Your task to perform on an android device: open device folders in google photos Image 0: 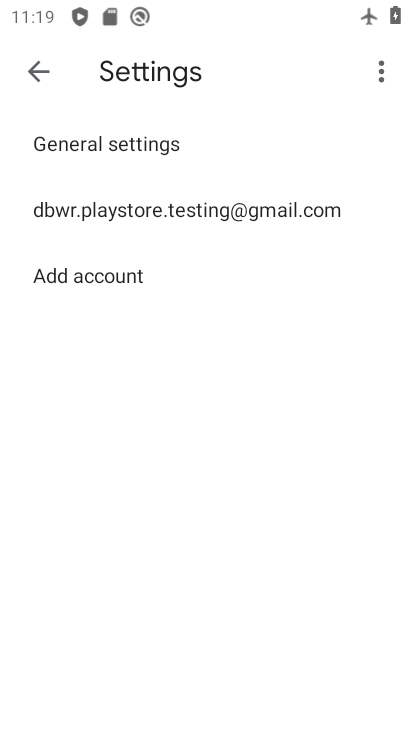
Step 0: press home button
Your task to perform on an android device: open device folders in google photos Image 1: 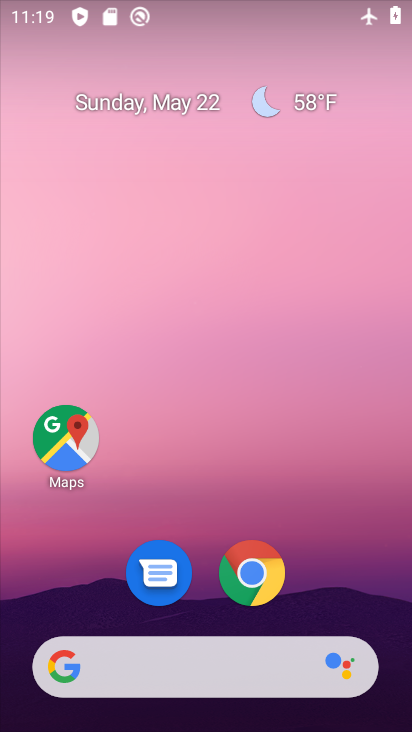
Step 1: drag from (331, 585) to (353, 309)
Your task to perform on an android device: open device folders in google photos Image 2: 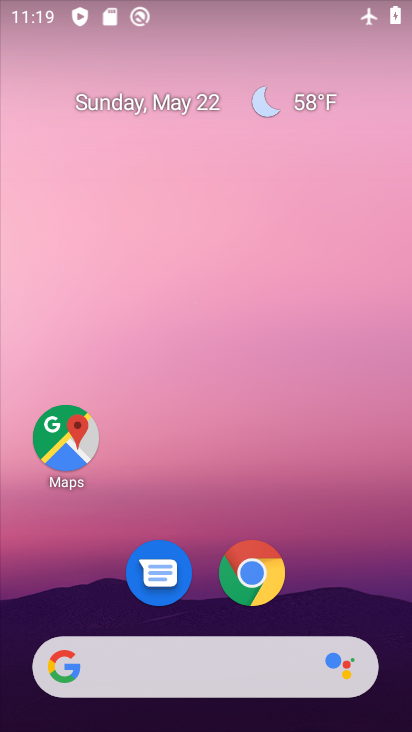
Step 2: drag from (382, 598) to (385, 259)
Your task to perform on an android device: open device folders in google photos Image 3: 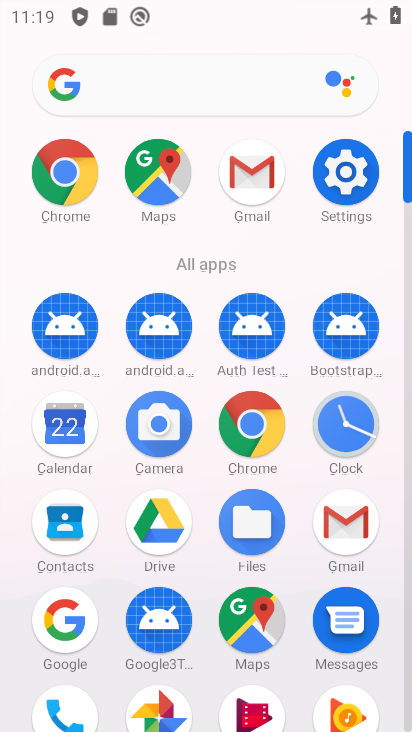
Step 3: drag from (290, 673) to (289, 480)
Your task to perform on an android device: open device folders in google photos Image 4: 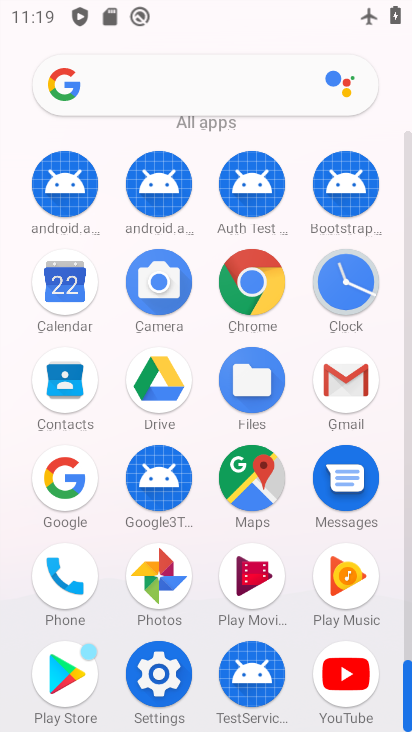
Step 4: click (136, 588)
Your task to perform on an android device: open device folders in google photos Image 5: 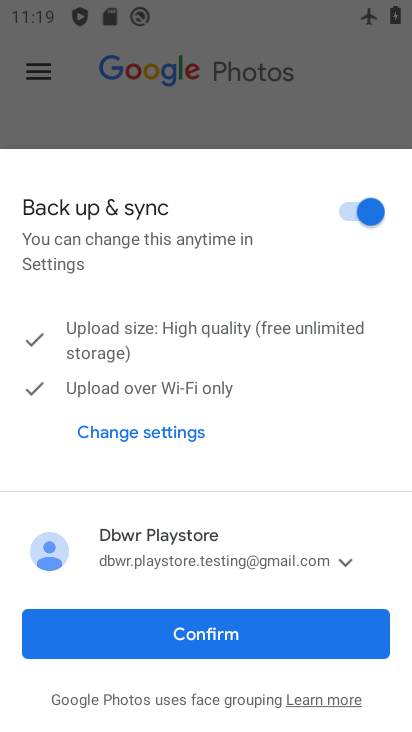
Step 5: click (207, 644)
Your task to perform on an android device: open device folders in google photos Image 6: 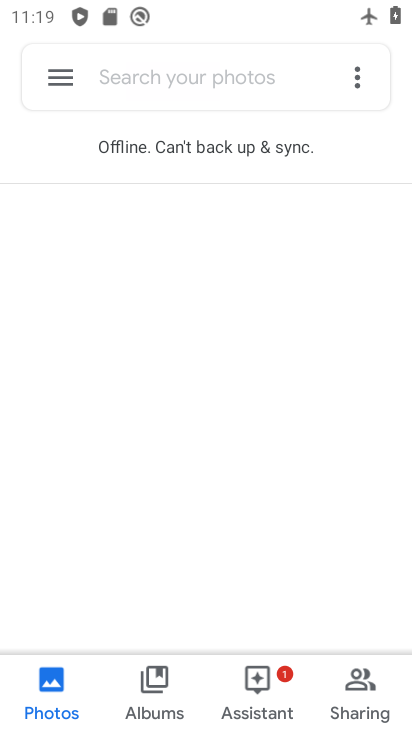
Step 6: click (57, 74)
Your task to perform on an android device: open device folders in google photos Image 7: 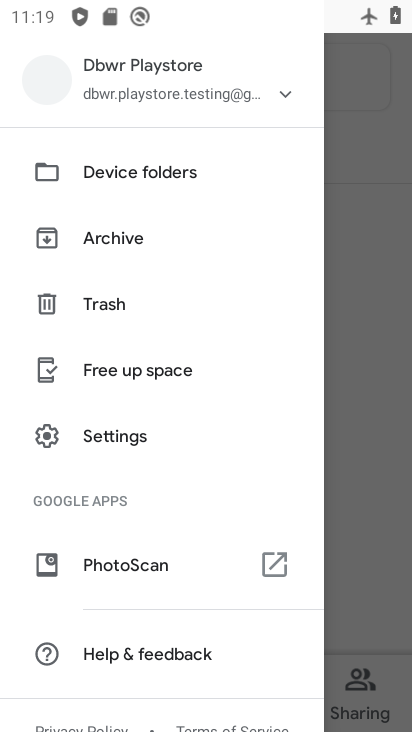
Step 7: drag from (217, 545) to (217, 386)
Your task to perform on an android device: open device folders in google photos Image 8: 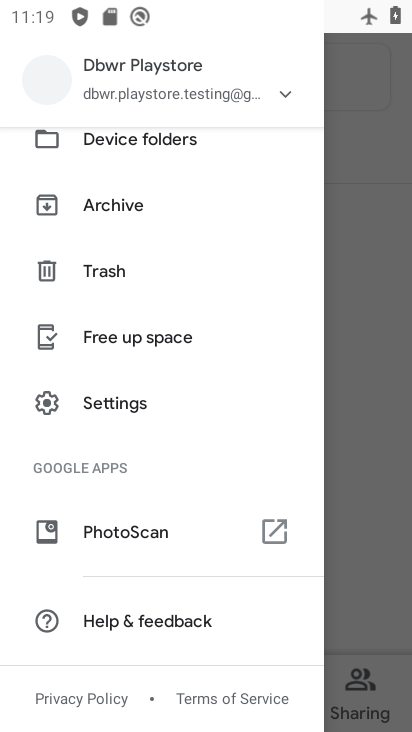
Step 8: drag from (202, 592) to (211, 436)
Your task to perform on an android device: open device folders in google photos Image 9: 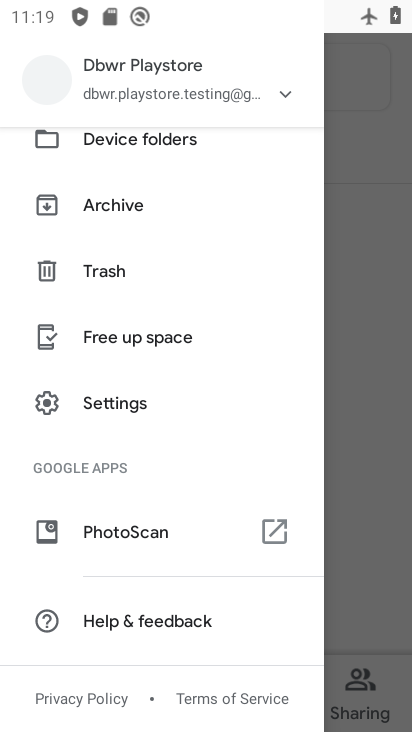
Step 9: drag from (204, 593) to (204, 397)
Your task to perform on an android device: open device folders in google photos Image 10: 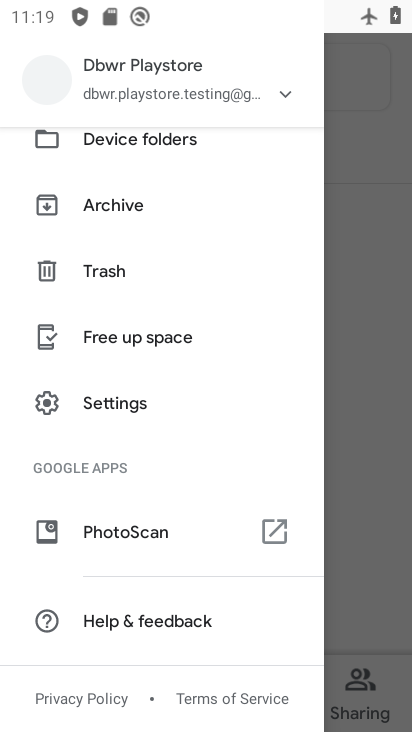
Step 10: drag from (208, 598) to (204, 387)
Your task to perform on an android device: open device folders in google photos Image 11: 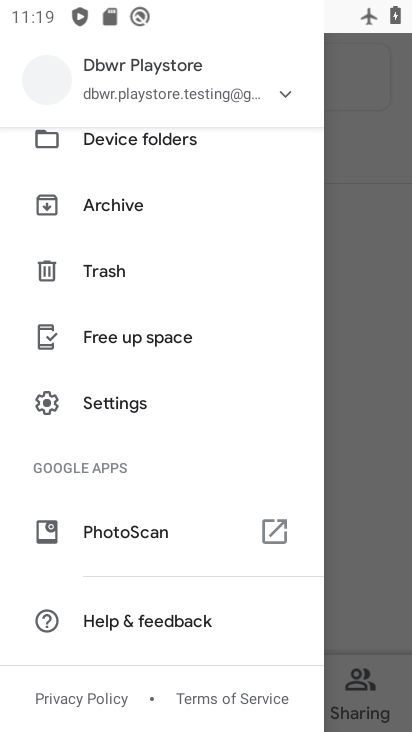
Step 11: drag from (198, 298) to (193, 469)
Your task to perform on an android device: open device folders in google photos Image 12: 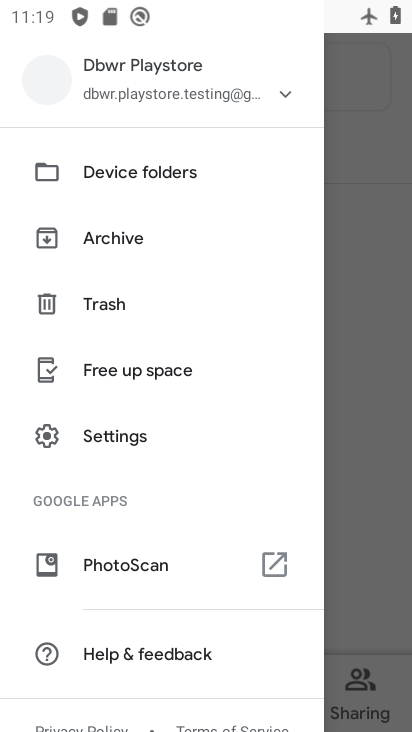
Step 12: drag from (188, 295) to (188, 466)
Your task to perform on an android device: open device folders in google photos Image 13: 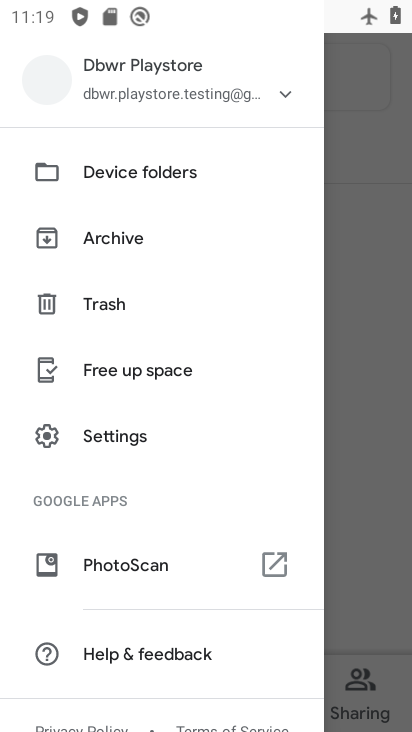
Step 13: drag from (198, 325) to (198, 477)
Your task to perform on an android device: open device folders in google photos Image 14: 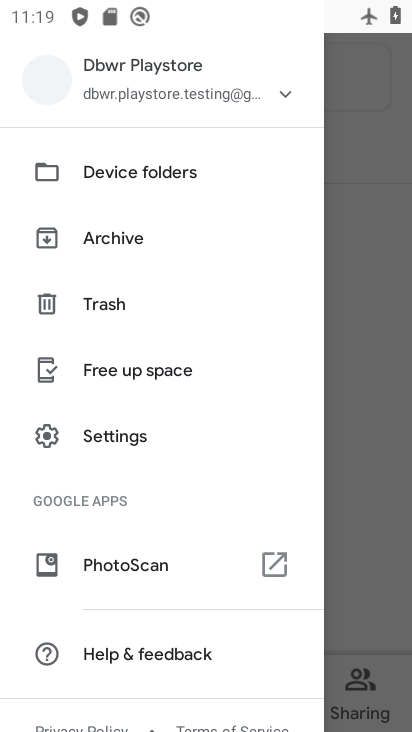
Step 14: drag from (188, 301) to (204, 455)
Your task to perform on an android device: open device folders in google photos Image 15: 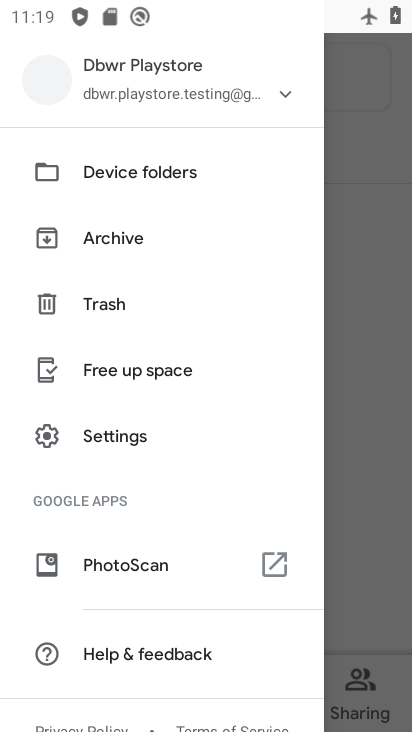
Step 15: drag from (200, 565) to (204, 356)
Your task to perform on an android device: open device folders in google photos Image 16: 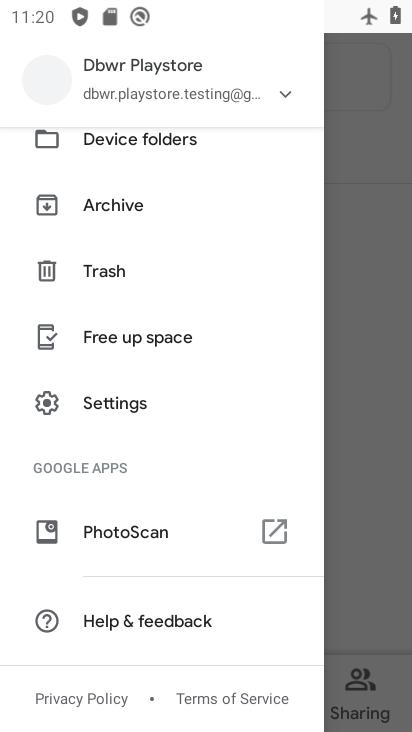
Step 16: drag from (198, 285) to (201, 438)
Your task to perform on an android device: open device folders in google photos Image 17: 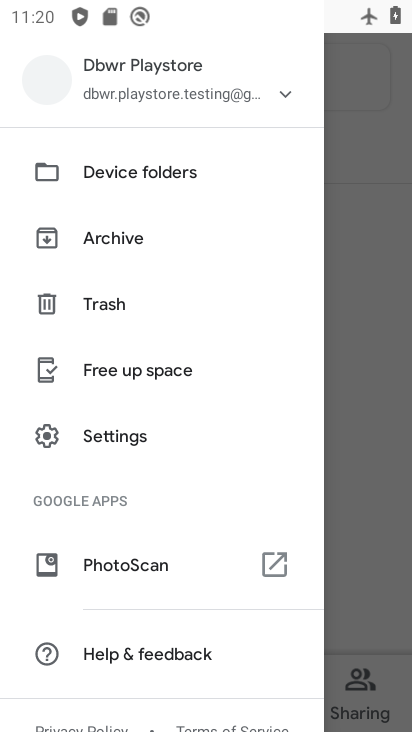
Step 17: click (174, 178)
Your task to perform on an android device: open device folders in google photos Image 18: 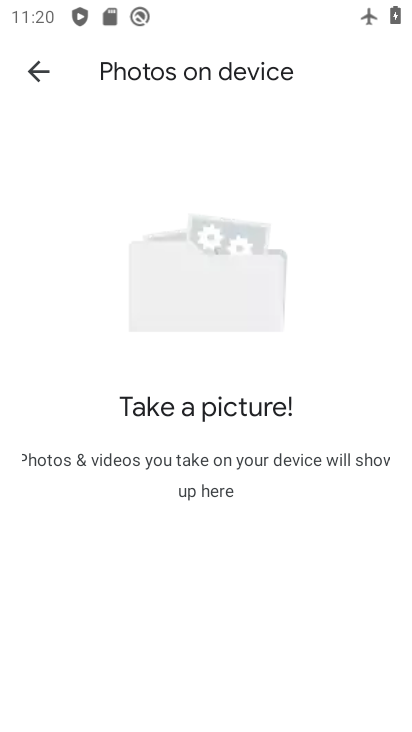
Step 18: task complete